Your task to perform on an android device: What's the weather going to be tomorrow? Image 0: 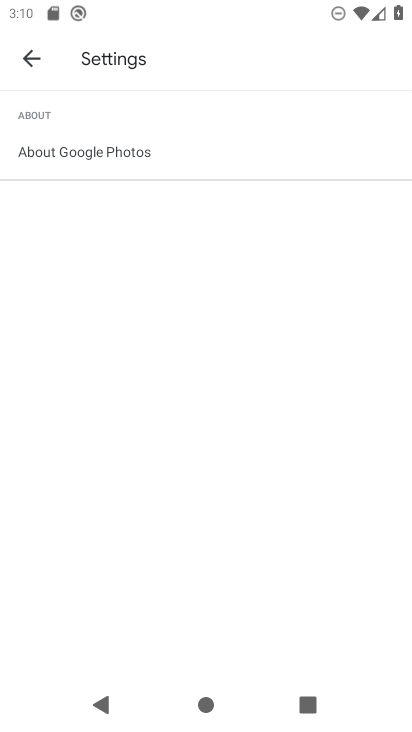
Step 0: press back button
Your task to perform on an android device: What's the weather going to be tomorrow? Image 1: 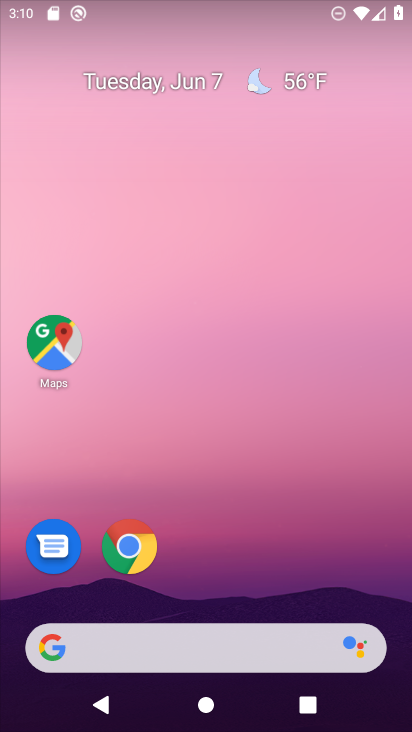
Step 1: drag from (292, 581) to (250, 24)
Your task to perform on an android device: What's the weather going to be tomorrow? Image 2: 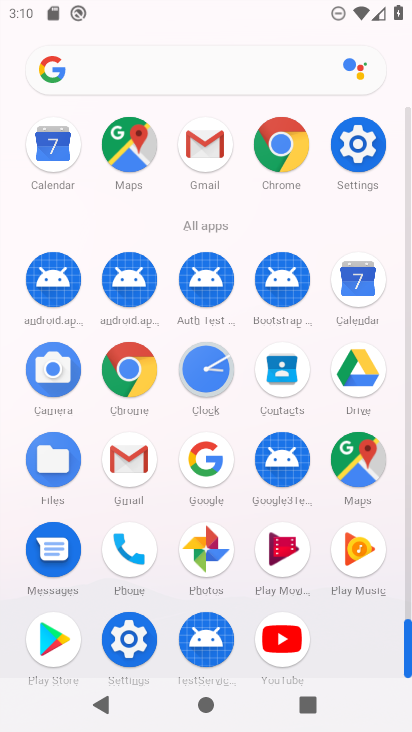
Step 2: drag from (4, 553) to (16, 196)
Your task to perform on an android device: What's the weather going to be tomorrow? Image 3: 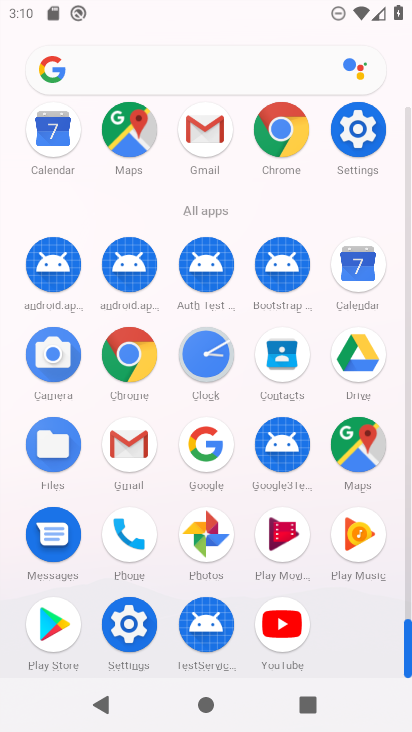
Step 3: drag from (14, 501) to (21, 220)
Your task to perform on an android device: What's the weather going to be tomorrow? Image 4: 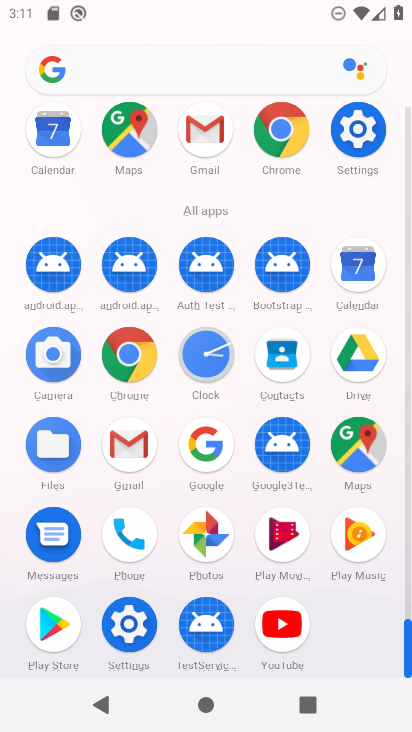
Step 4: click (127, 347)
Your task to perform on an android device: What's the weather going to be tomorrow? Image 5: 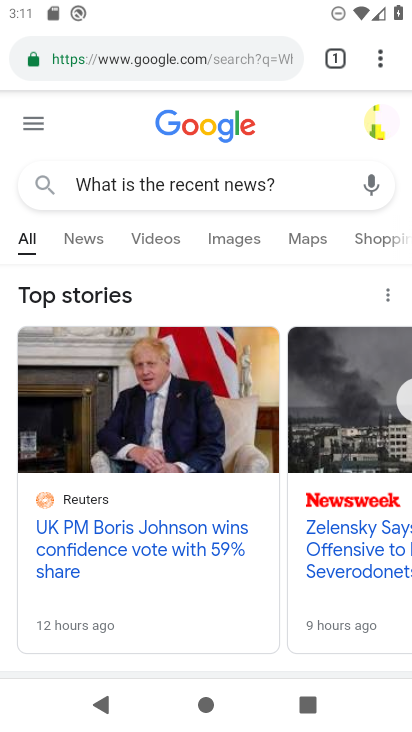
Step 5: click (191, 54)
Your task to perform on an android device: What's the weather going to be tomorrow? Image 6: 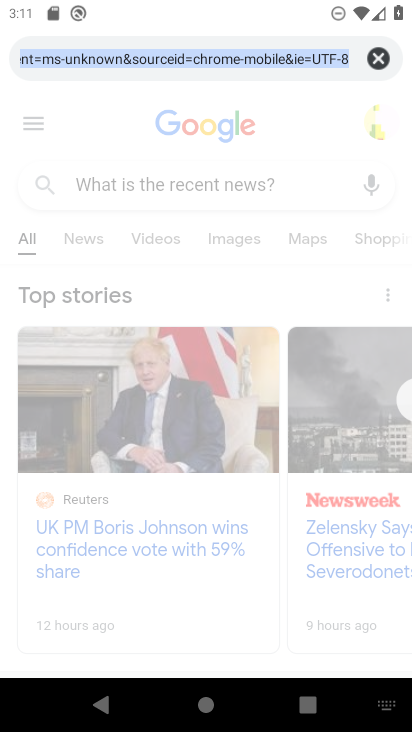
Step 6: click (381, 49)
Your task to perform on an android device: What's the weather going to be tomorrow? Image 7: 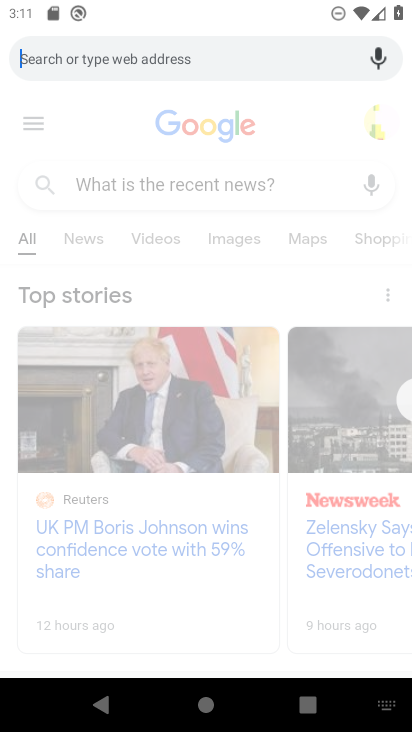
Step 7: type "What's the weather going to be tomorrow?"
Your task to perform on an android device: What's the weather going to be tomorrow? Image 8: 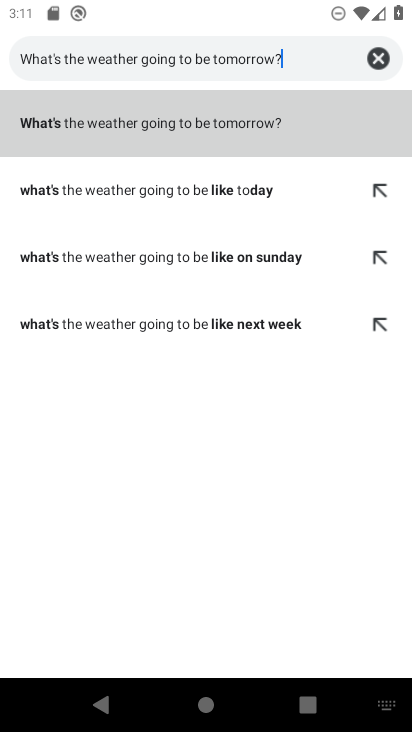
Step 8: type ""
Your task to perform on an android device: What's the weather going to be tomorrow? Image 9: 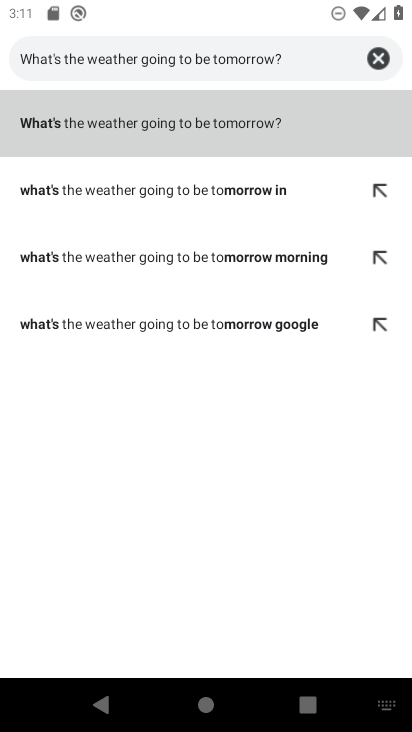
Step 9: click (159, 138)
Your task to perform on an android device: What's the weather going to be tomorrow? Image 10: 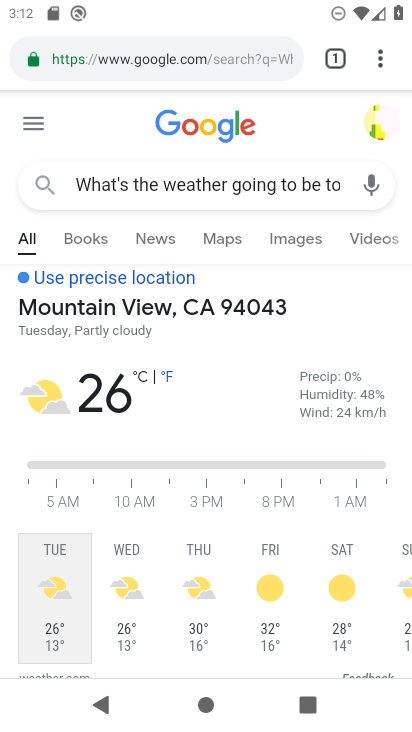
Step 10: task complete